Your task to perform on an android device: Open the calendar app, open the side menu, and click the "Day" option Image 0: 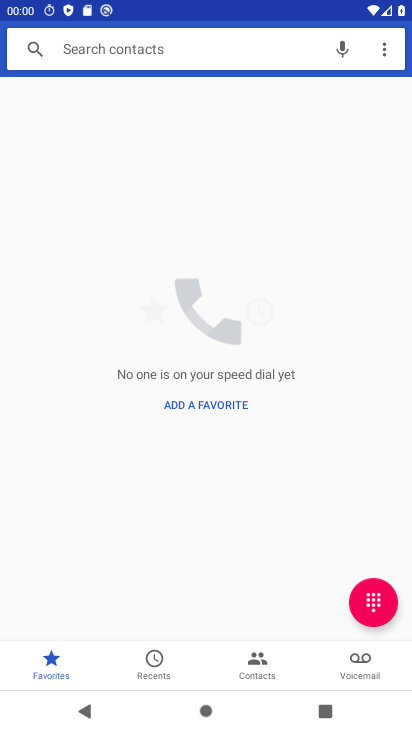
Step 0: press home button
Your task to perform on an android device: Open the calendar app, open the side menu, and click the "Day" option Image 1: 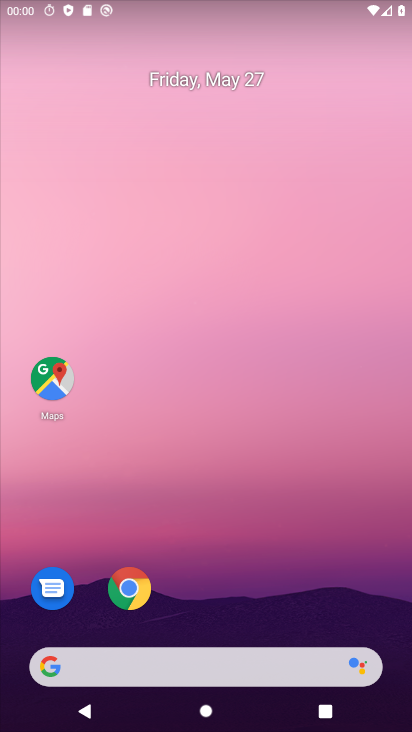
Step 1: drag from (171, 650) to (175, 158)
Your task to perform on an android device: Open the calendar app, open the side menu, and click the "Day" option Image 2: 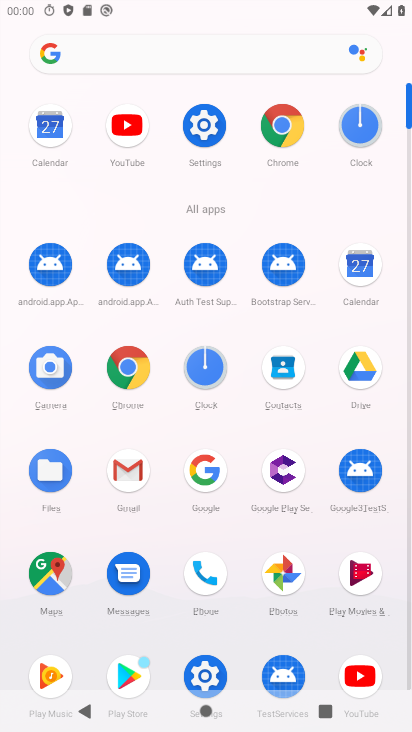
Step 2: click (354, 271)
Your task to perform on an android device: Open the calendar app, open the side menu, and click the "Day" option Image 3: 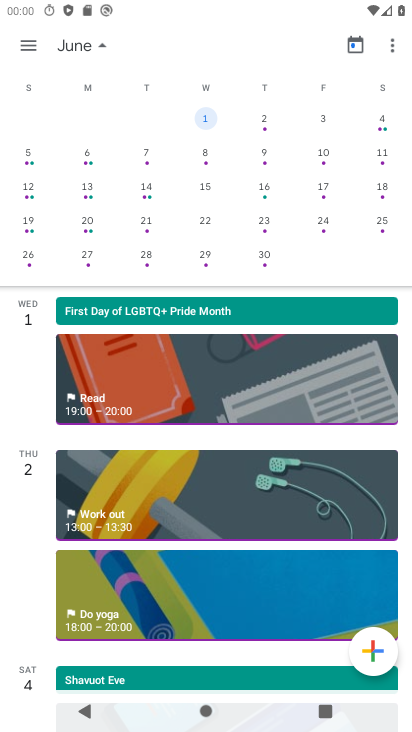
Step 3: click (24, 32)
Your task to perform on an android device: Open the calendar app, open the side menu, and click the "Day" option Image 4: 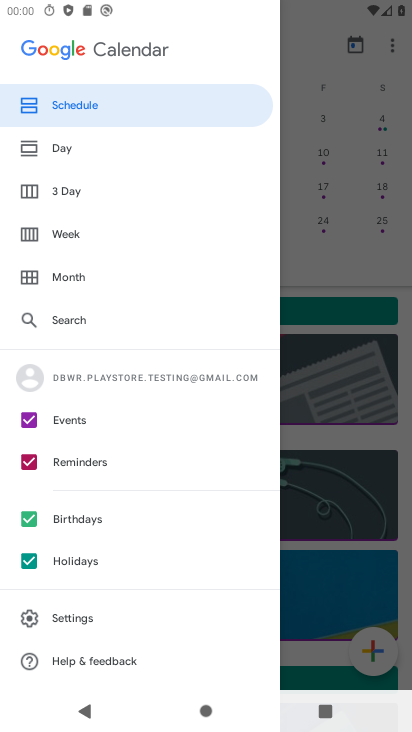
Step 4: click (65, 153)
Your task to perform on an android device: Open the calendar app, open the side menu, and click the "Day" option Image 5: 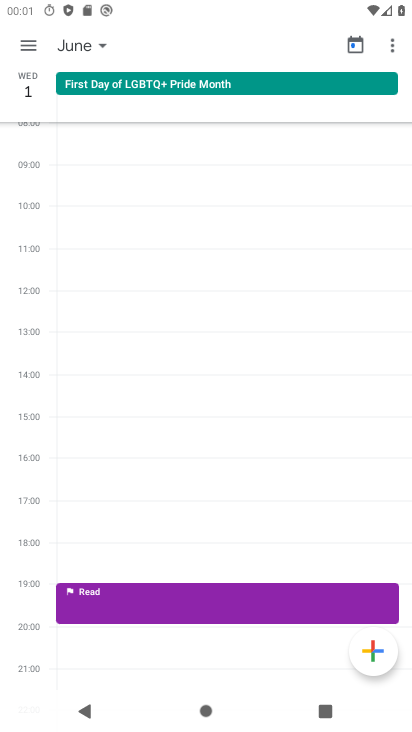
Step 5: task complete